Your task to perform on an android device: open app "Adobe Acrobat Reader" (install if not already installed) Image 0: 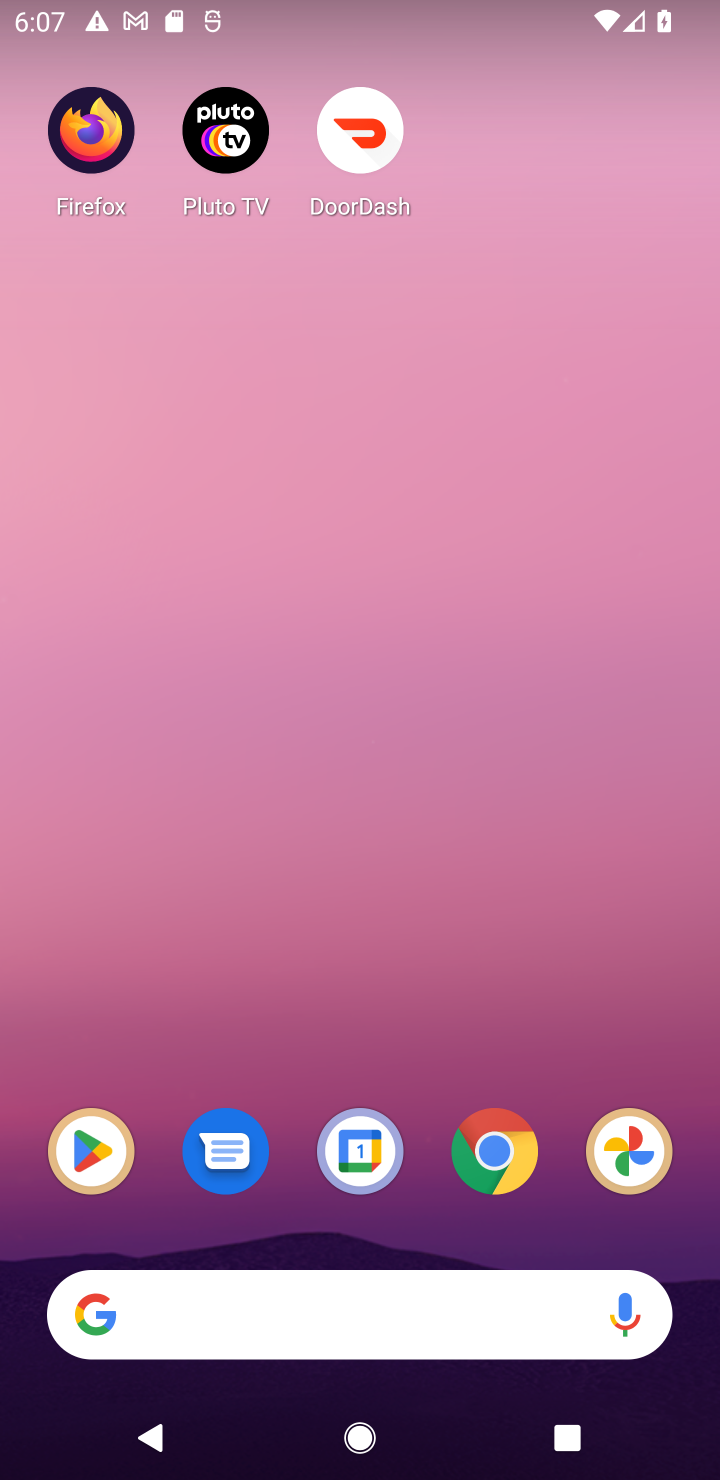
Step 0: drag from (448, 1299) to (616, 149)
Your task to perform on an android device: open app "Adobe Acrobat Reader" (install if not already installed) Image 1: 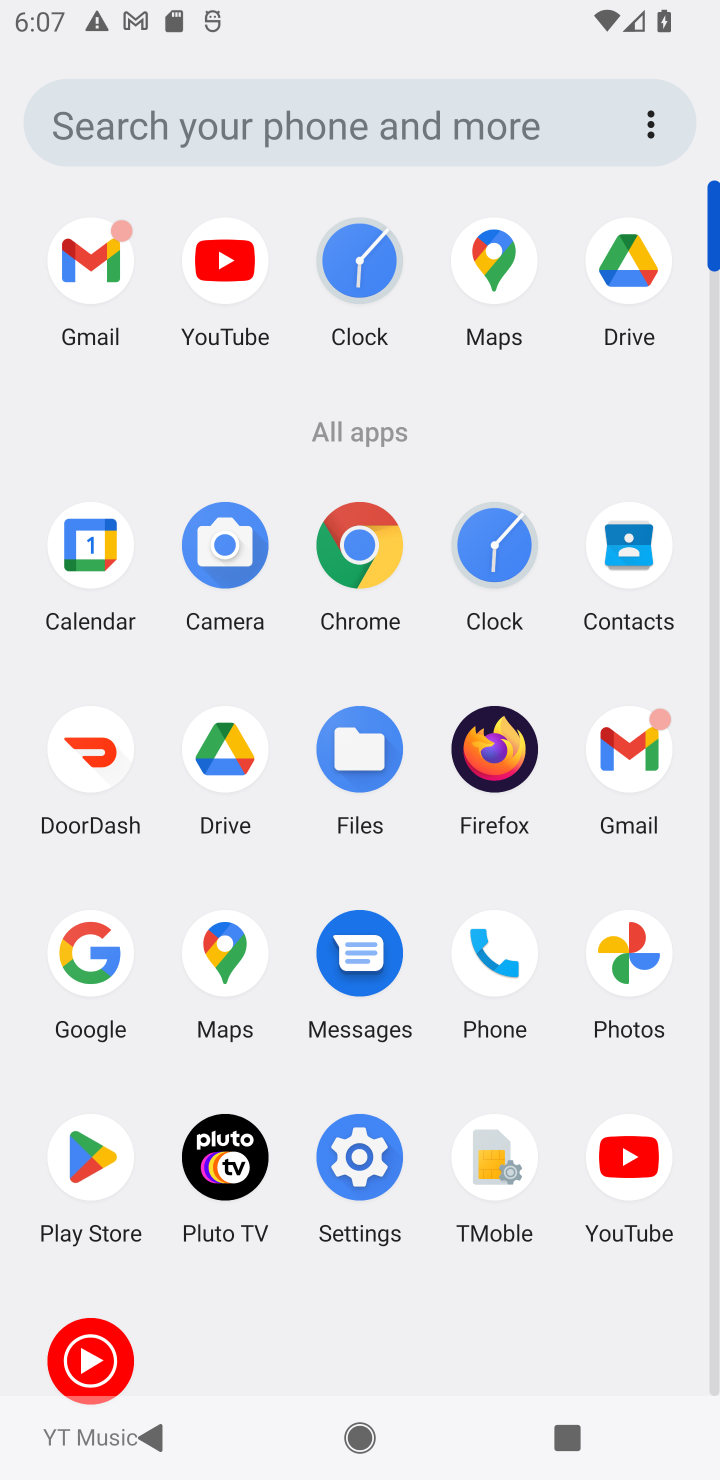
Step 1: click (116, 1161)
Your task to perform on an android device: open app "Adobe Acrobat Reader" (install if not already installed) Image 2: 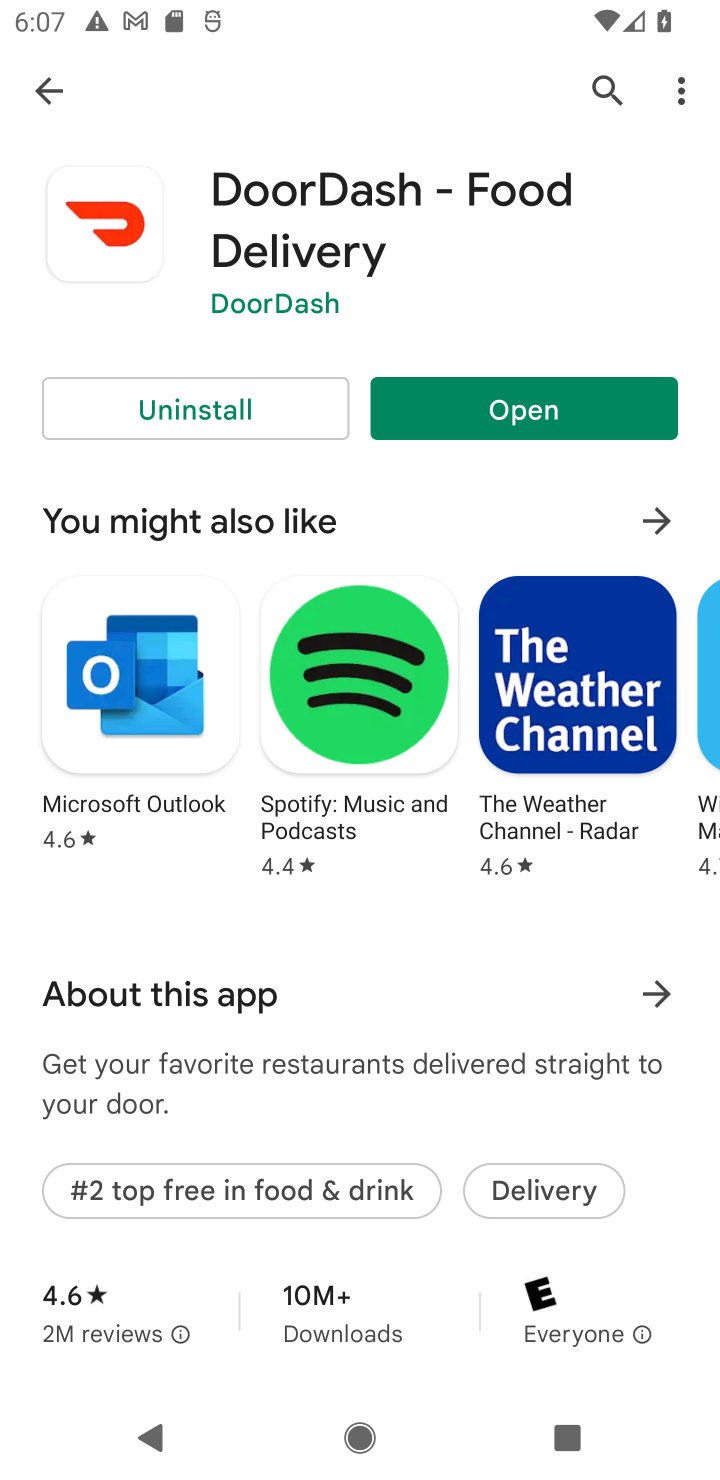
Step 2: click (611, 80)
Your task to perform on an android device: open app "Adobe Acrobat Reader" (install if not already installed) Image 3: 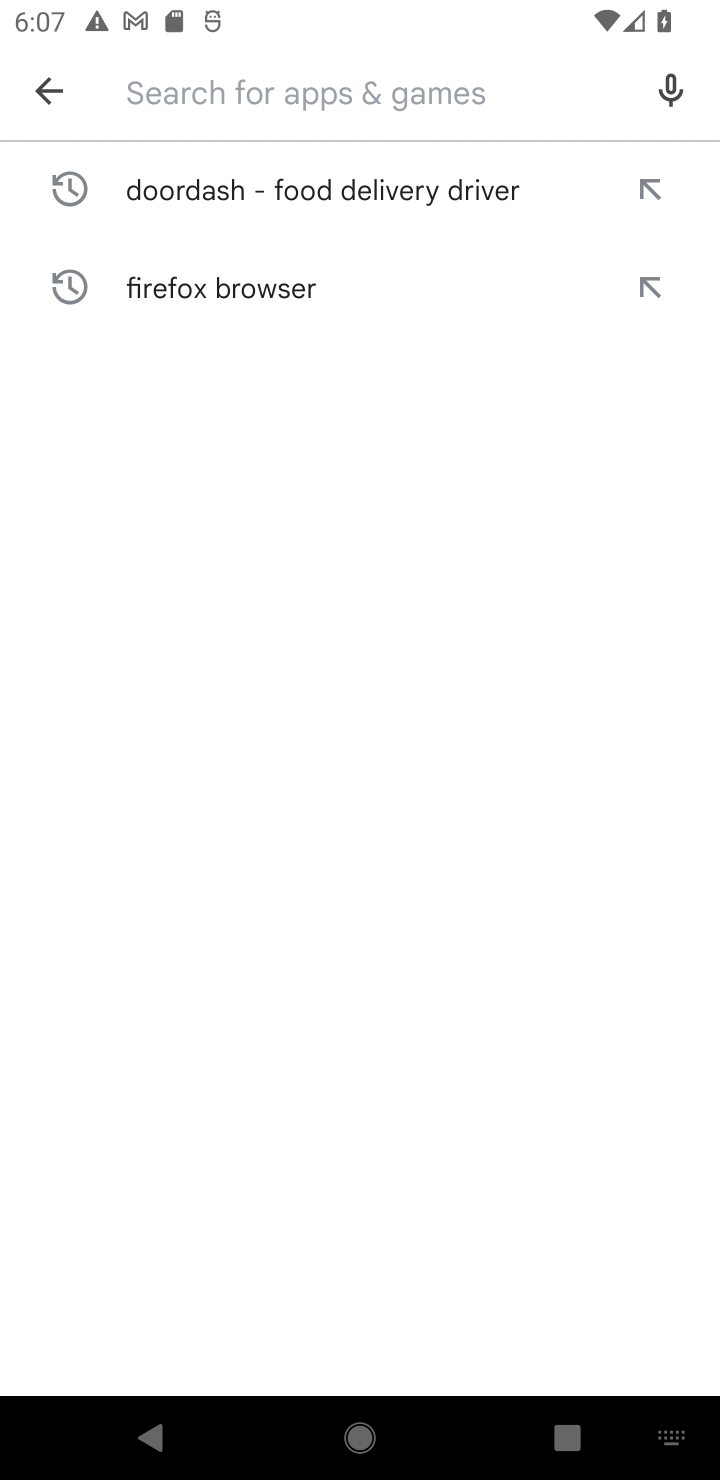
Step 3: type "adobe acrobat reader"
Your task to perform on an android device: open app "Adobe Acrobat Reader" (install if not already installed) Image 4: 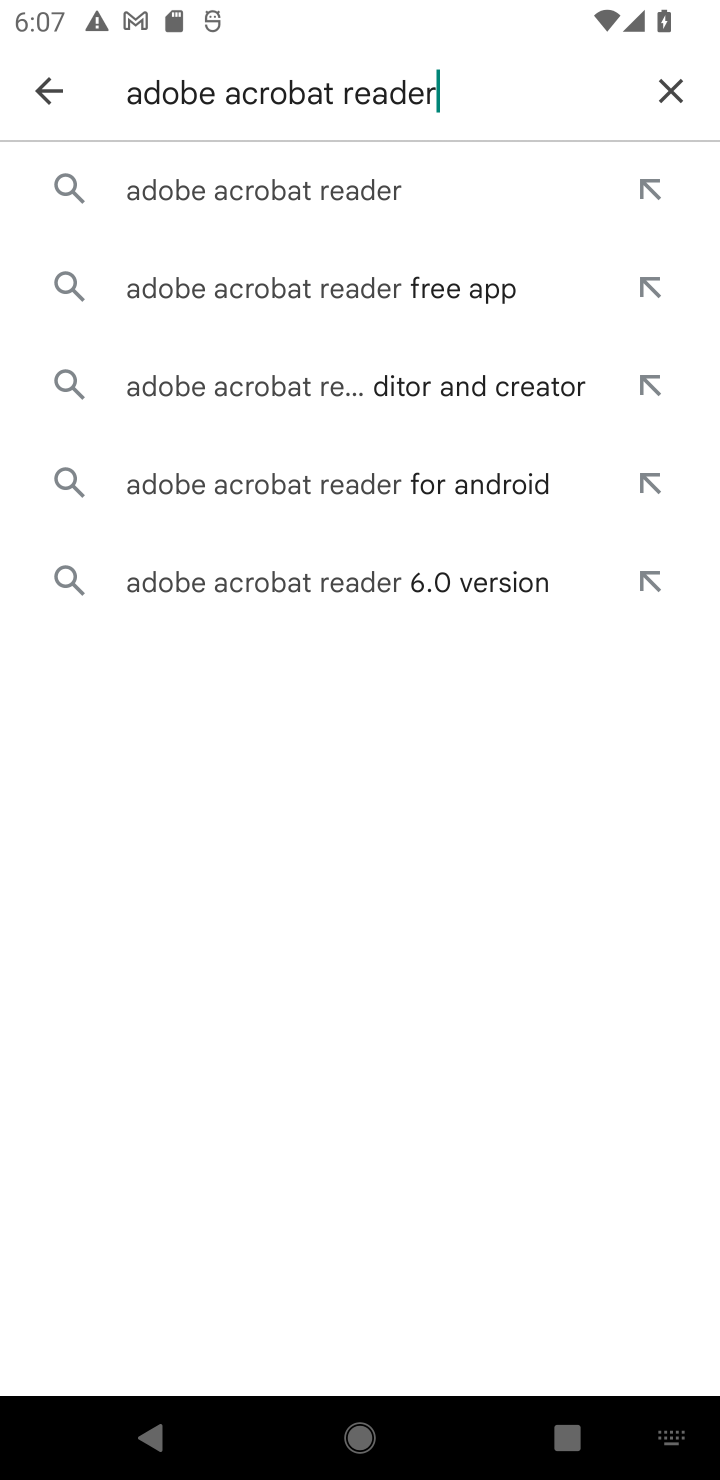
Step 4: click (358, 179)
Your task to perform on an android device: open app "Adobe Acrobat Reader" (install if not already installed) Image 5: 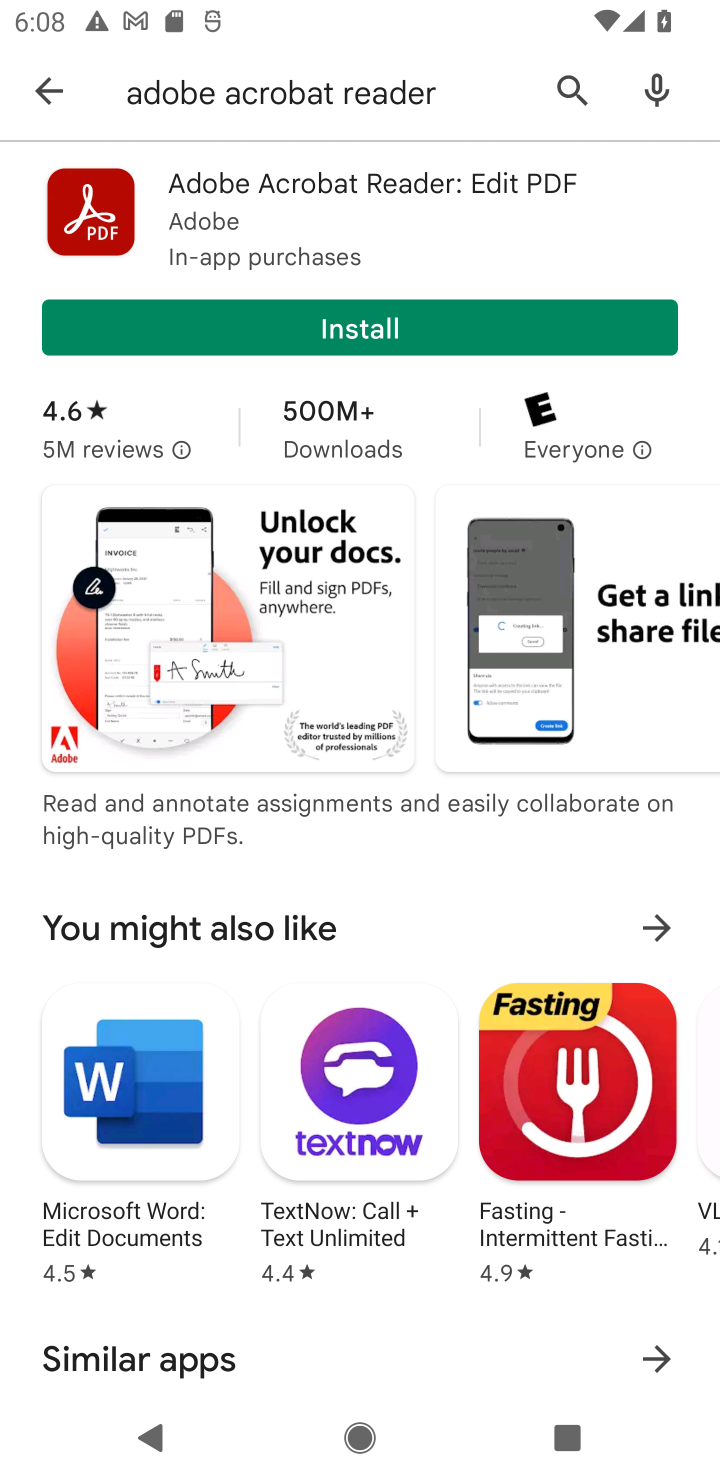
Step 5: click (313, 318)
Your task to perform on an android device: open app "Adobe Acrobat Reader" (install if not already installed) Image 6: 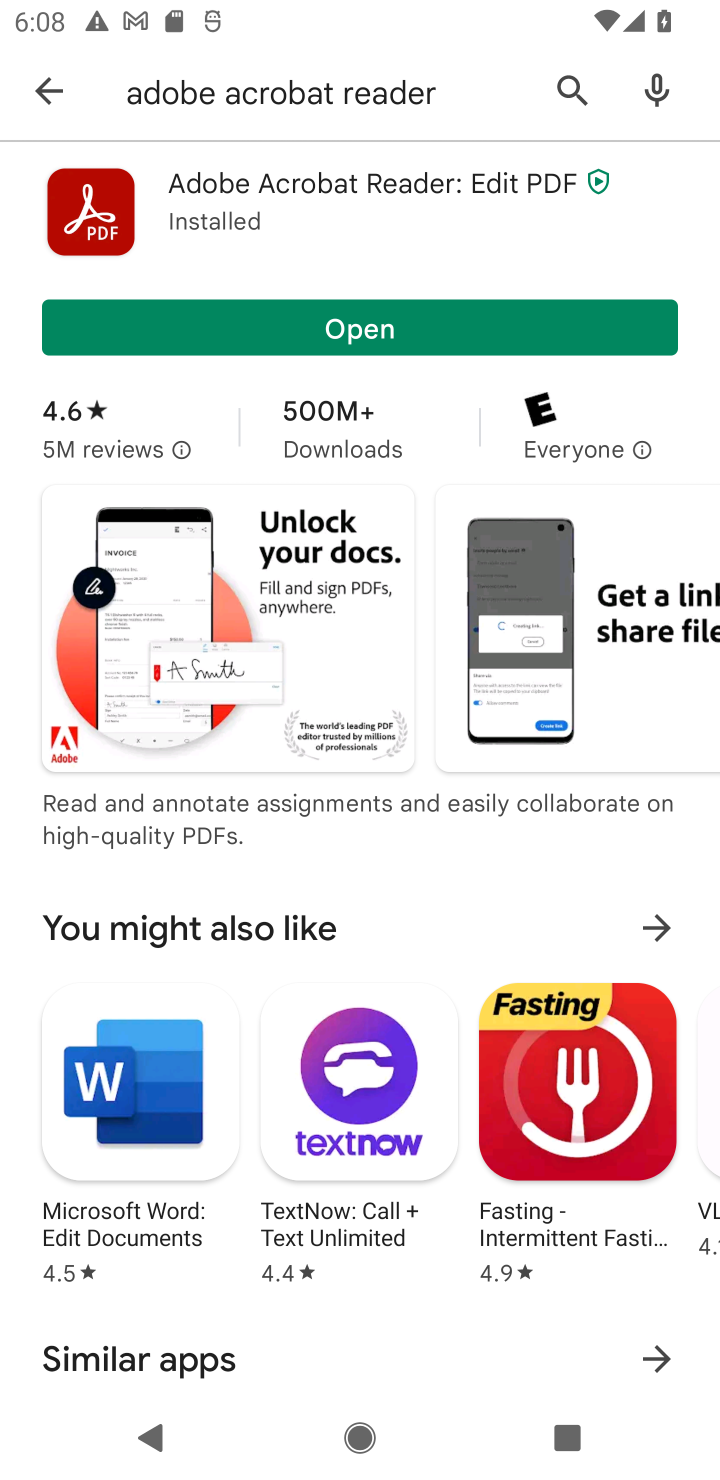
Step 6: click (368, 331)
Your task to perform on an android device: open app "Adobe Acrobat Reader" (install if not already installed) Image 7: 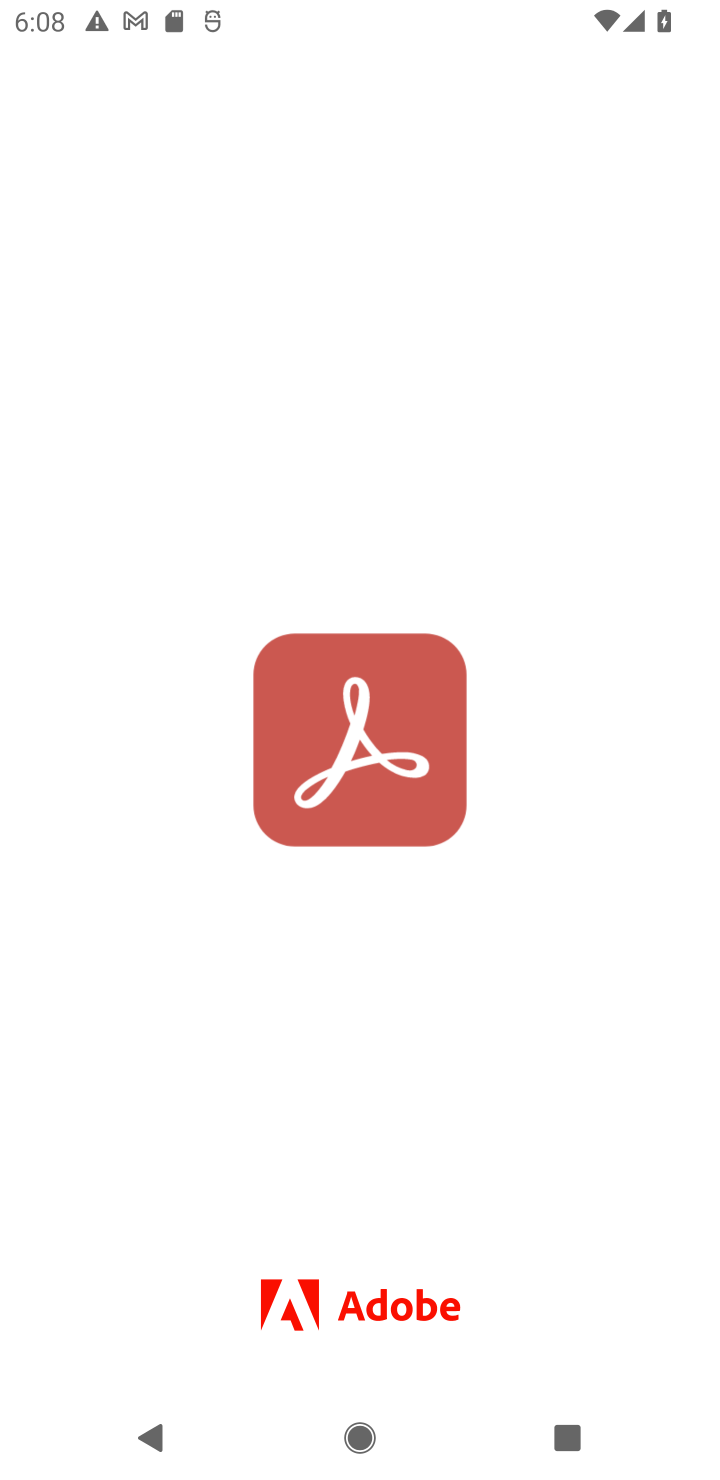
Step 7: task complete